Your task to perform on an android device: Go to Wikipedia Image 0: 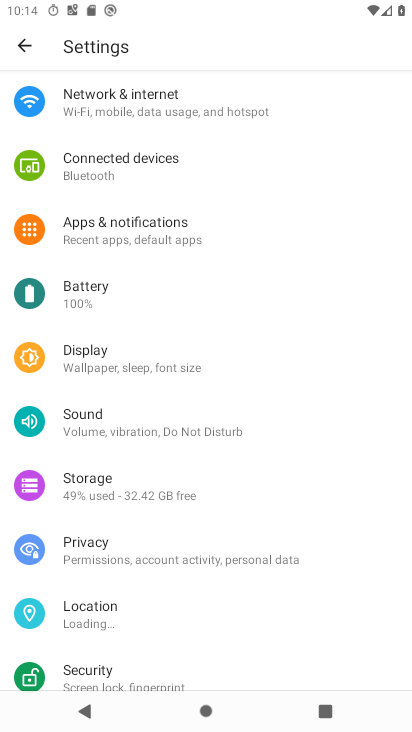
Step 0: press home button
Your task to perform on an android device: Go to Wikipedia Image 1: 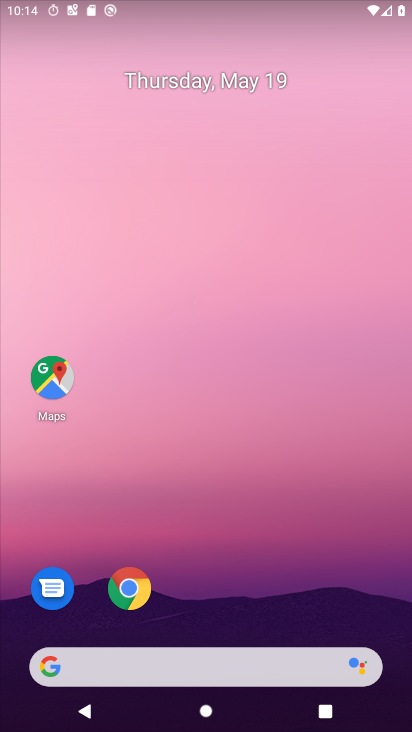
Step 1: click (132, 582)
Your task to perform on an android device: Go to Wikipedia Image 2: 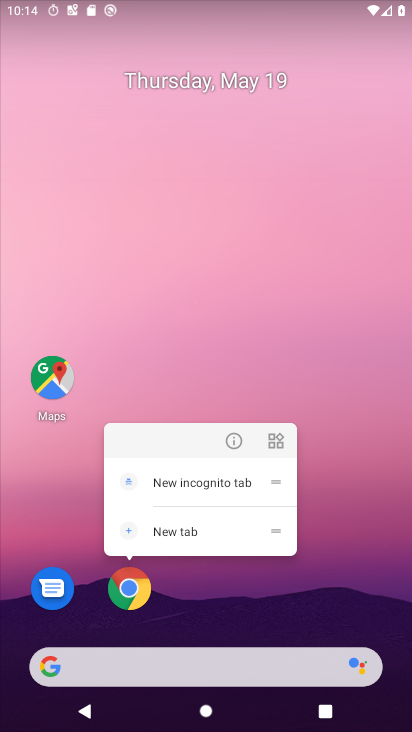
Step 2: click (132, 582)
Your task to perform on an android device: Go to Wikipedia Image 3: 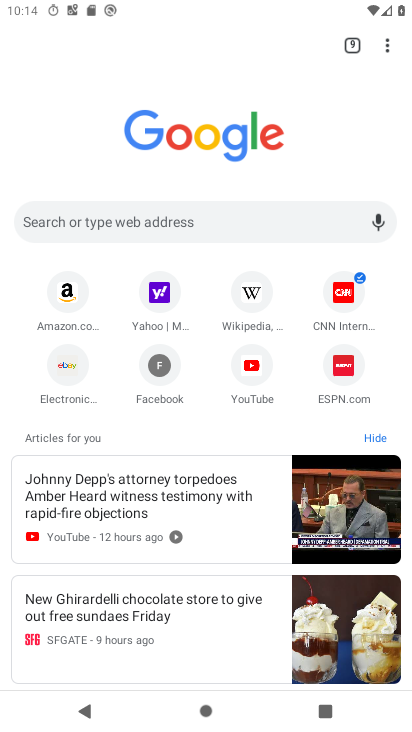
Step 3: click (248, 301)
Your task to perform on an android device: Go to Wikipedia Image 4: 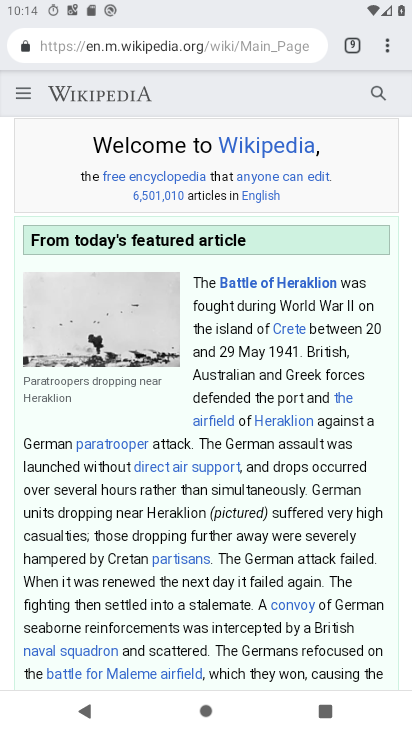
Step 4: task complete